Your task to perform on an android device: What's US dollar exchange rateagainst the Mexican Peso? Image 0: 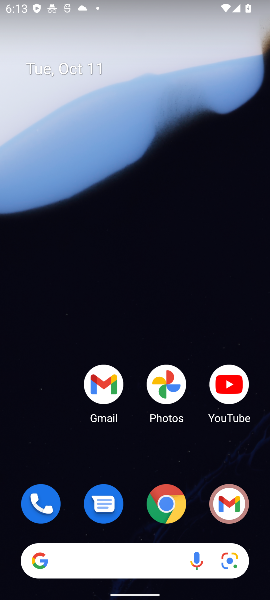
Step 0: click (66, 554)
Your task to perform on an android device: What's US dollar exchange rateagainst the Mexican Peso? Image 1: 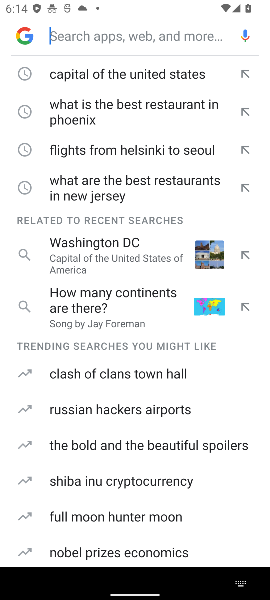
Step 1: click (75, 35)
Your task to perform on an android device: What's US dollar exchange rateagainst the Mexican Peso? Image 2: 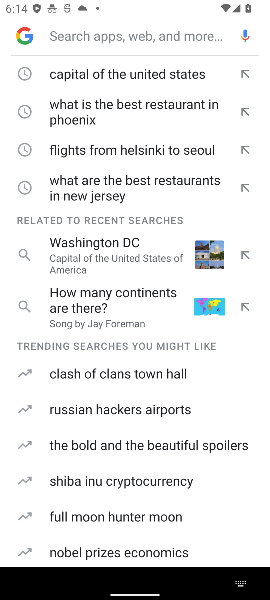
Step 2: type "What's US dollar exchange rateagainst the Mexican Peso"
Your task to perform on an android device: What's US dollar exchange rateagainst the Mexican Peso? Image 3: 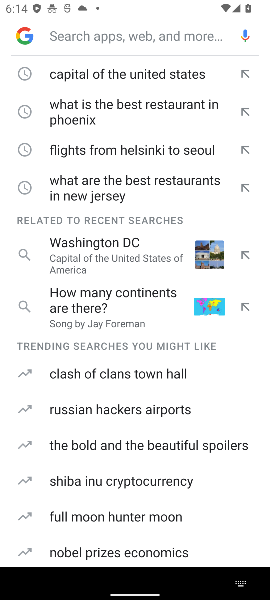
Step 3: click (111, 41)
Your task to perform on an android device: What's US dollar exchange rateagainst the Mexican Peso? Image 4: 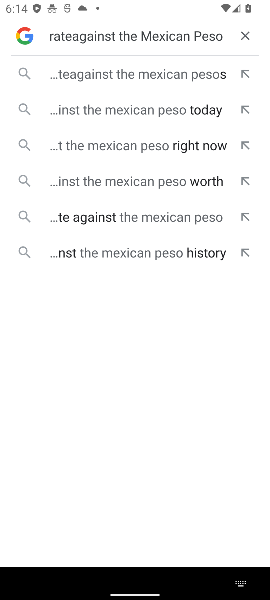
Step 4: click (120, 79)
Your task to perform on an android device: What's US dollar exchange rateagainst the Mexican Peso? Image 5: 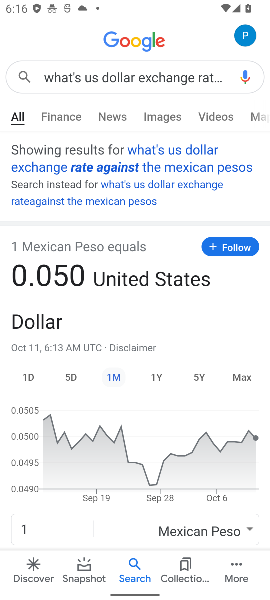
Step 5: task complete